Your task to perform on an android device: Open location settings Image 0: 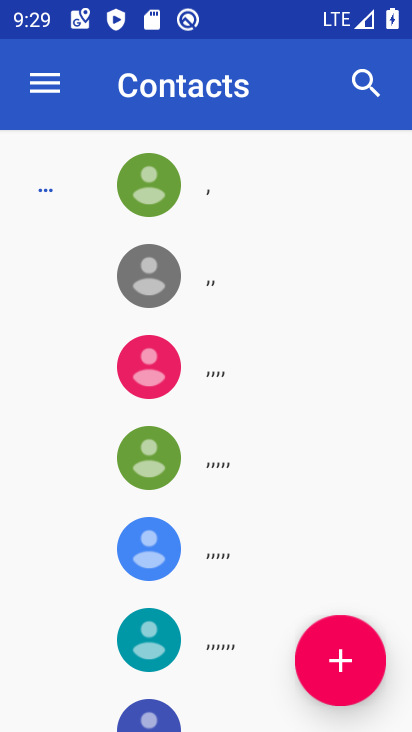
Step 0: press home button
Your task to perform on an android device: Open location settings Image 1: 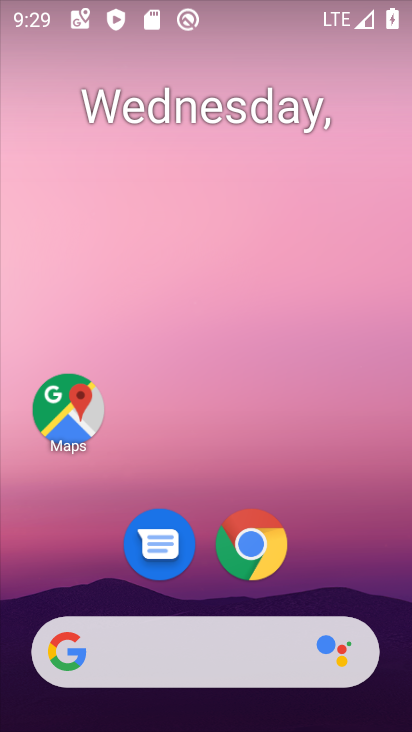
Step 1: drag from (197, 592) to (180, 106)
Your task to perform on an android device: Open location settings Image 2: 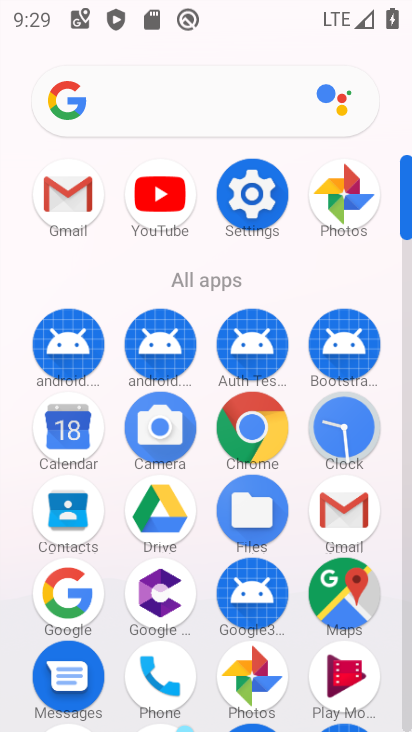
Step 2: click (264, 191)
Your task to perform on an android device: Open location settings Image 3: 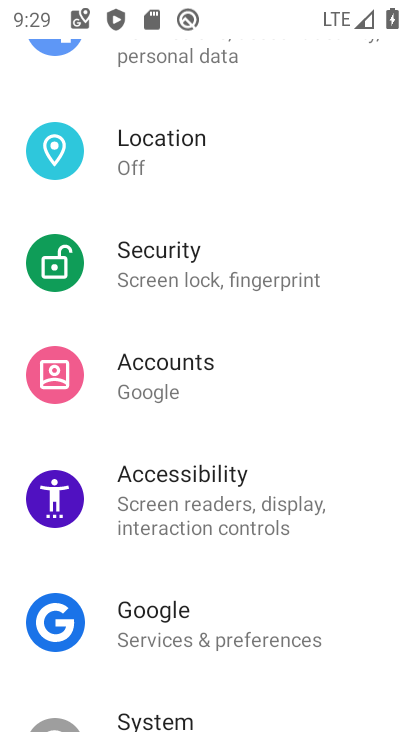
Step 3: click (203, 171)
Your task to perform on an android device: Open location settings Image 4: 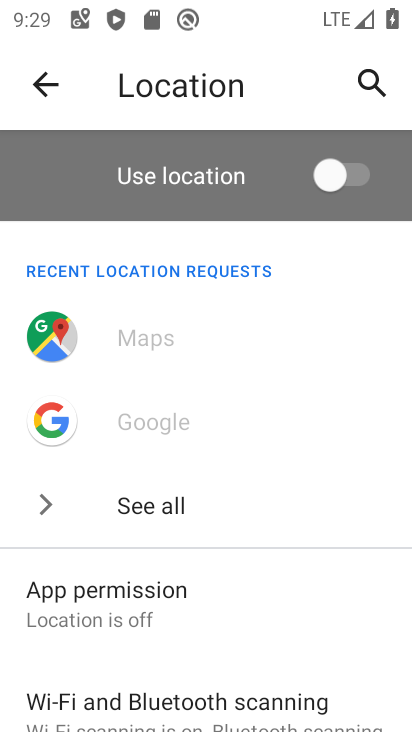
Step 4: task complete